Your task to perform on an android device: set the stopwatch Image 0: 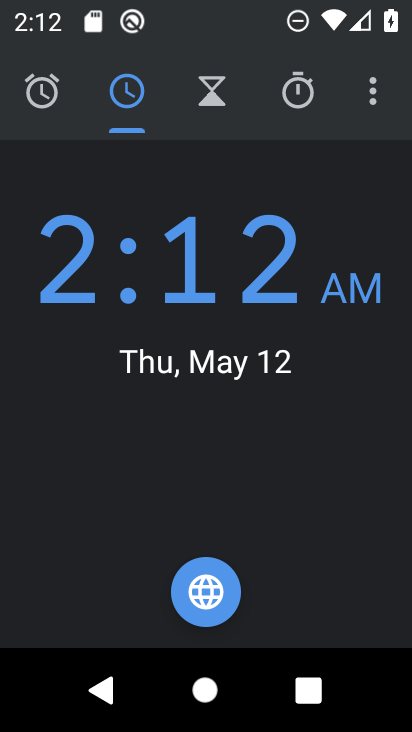
Step 0: click (287, 102)
Your task to perform on an android device: set the stopwatch Image 1: 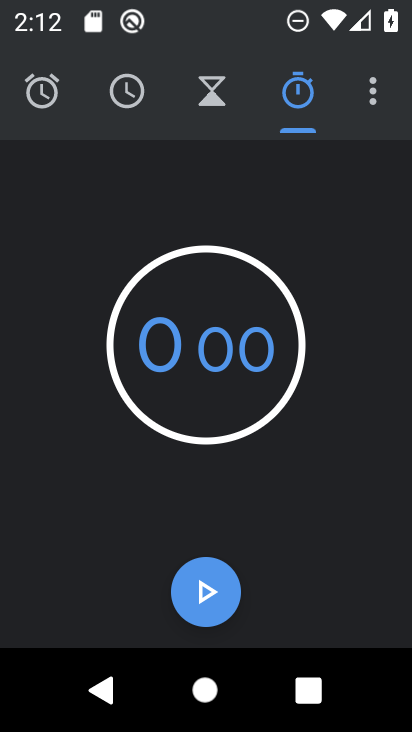
Step 1: click (214, 566)
Your task to perform on an android device: set the stopwatch Image 2: 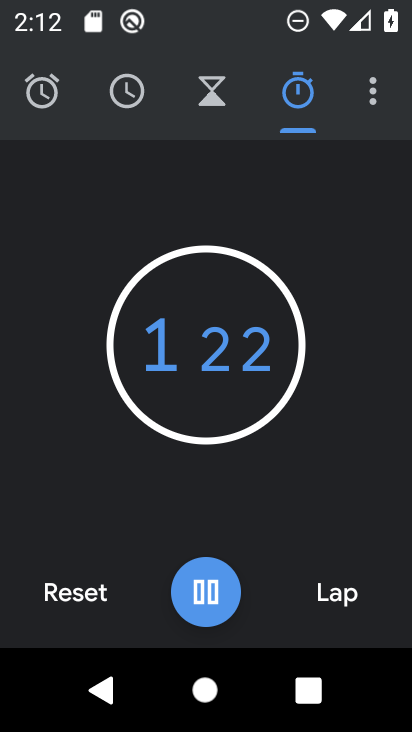
Step 2: task complete